Your task to perform on an android device: Clear the shopping cart on amazon.com. Image 0: 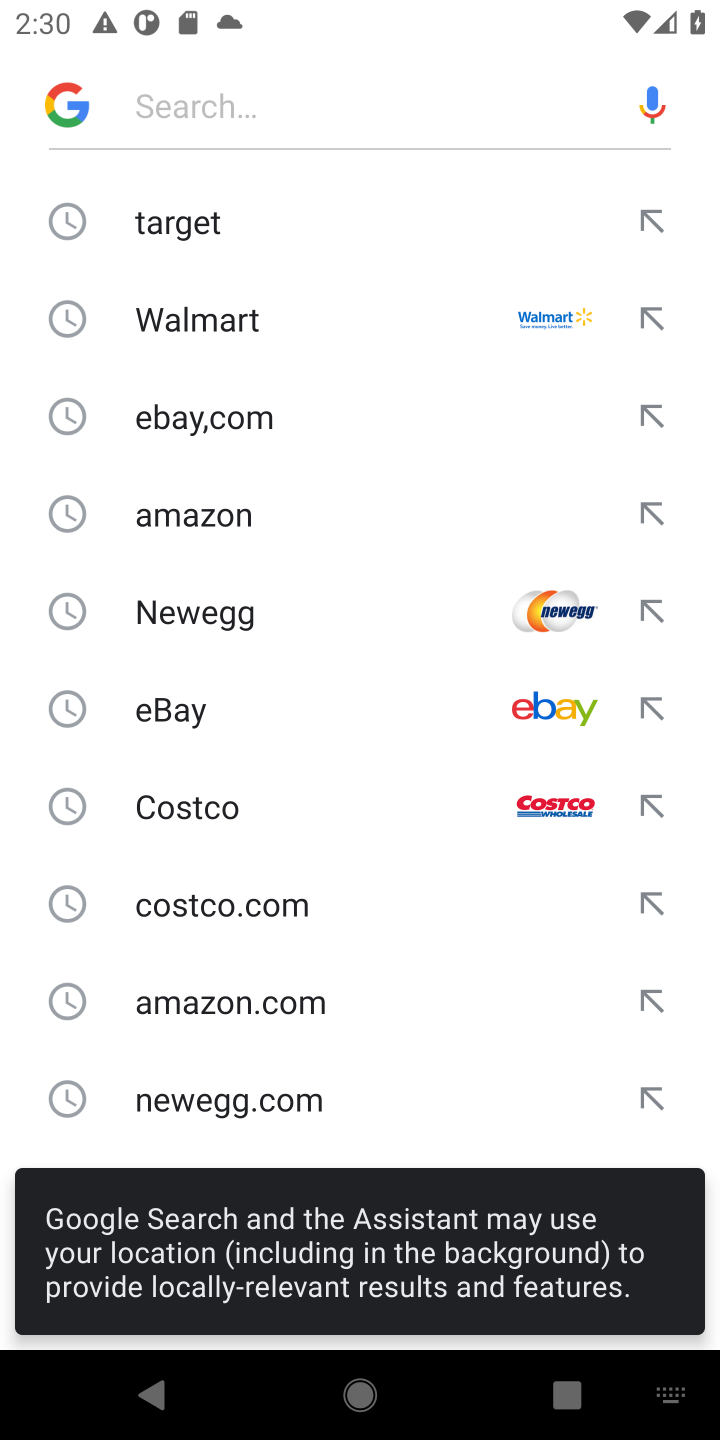
Step 0: press home button
Your task to perform on an android device: Clear the shopping cart on amazon.com. Image 1: 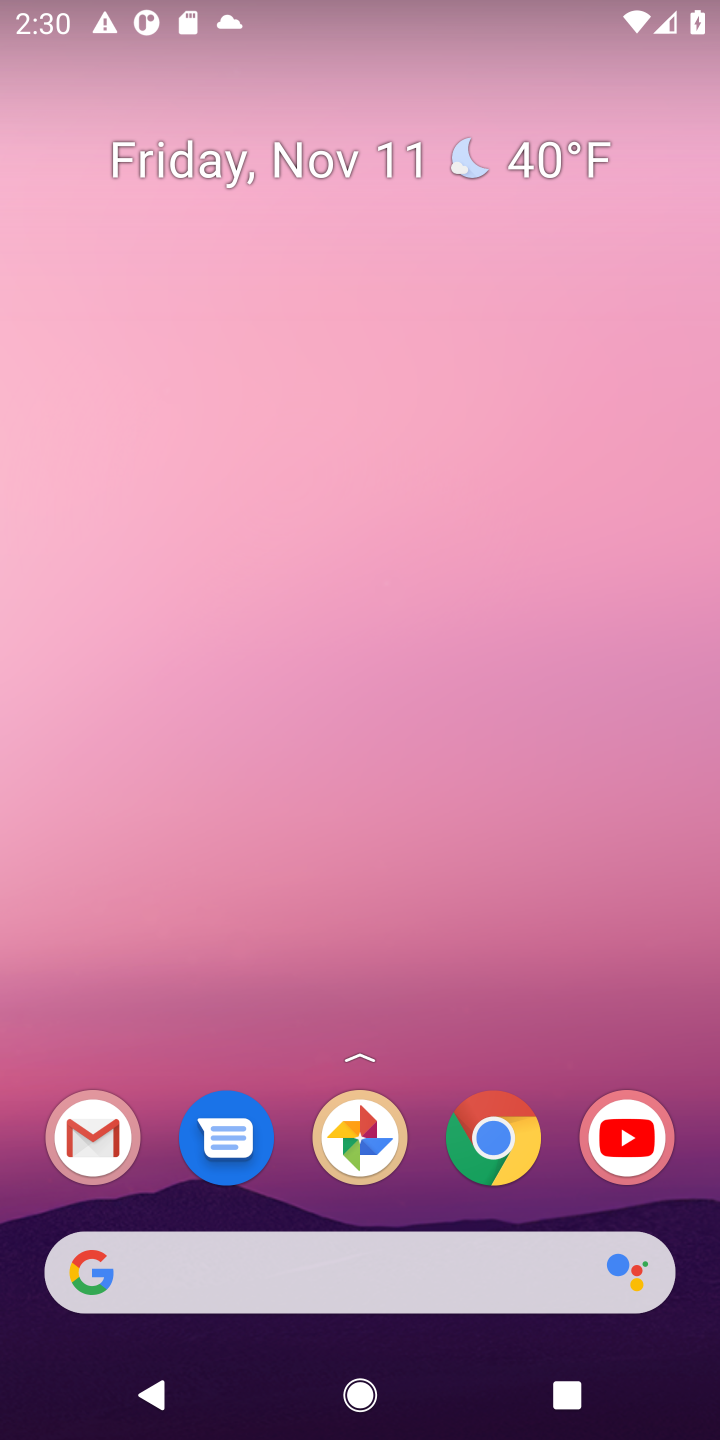
Step 1: click (488, 1122)
Your task to perform on an android device: Clear the shopping cart on amazon.com. Image 2: 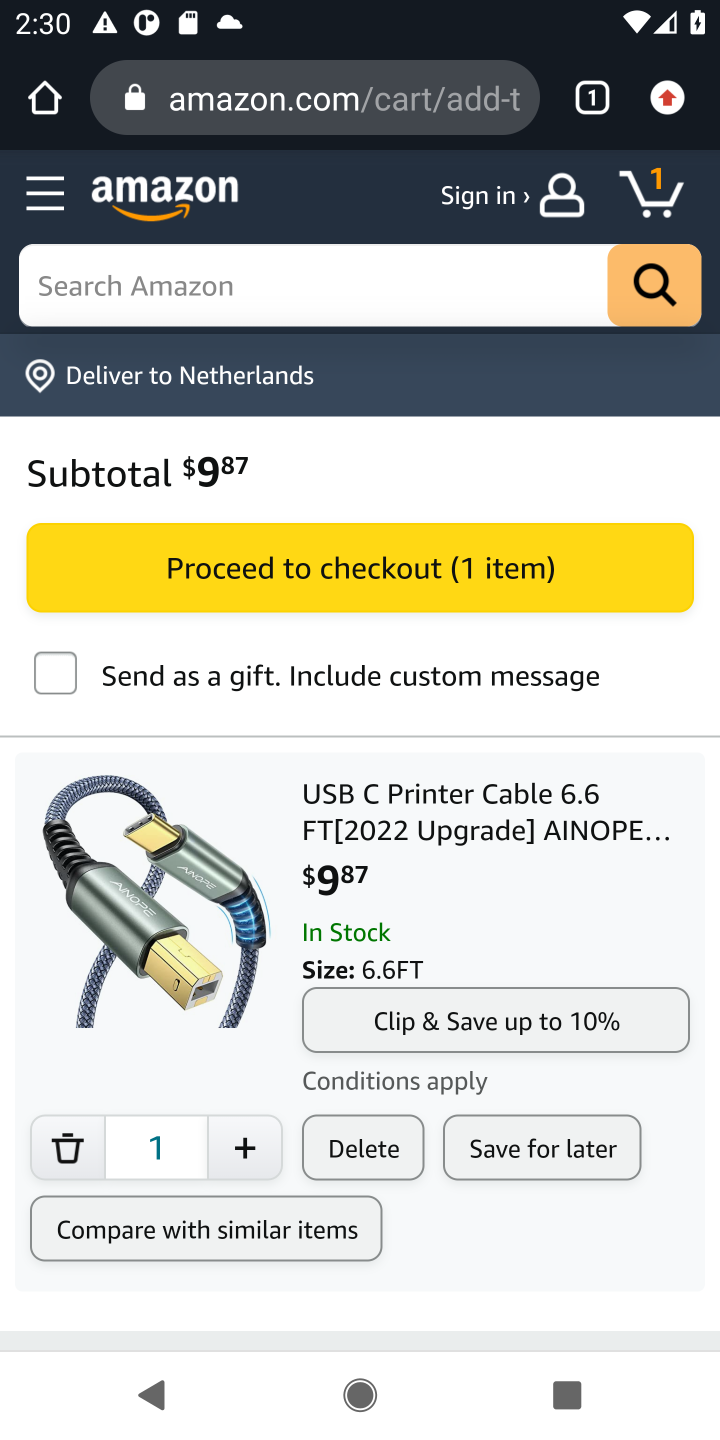
Step 2: click (653, 203)
Your task to perform on an android device: Clear the shopping cart on amazon.com. Image 3: 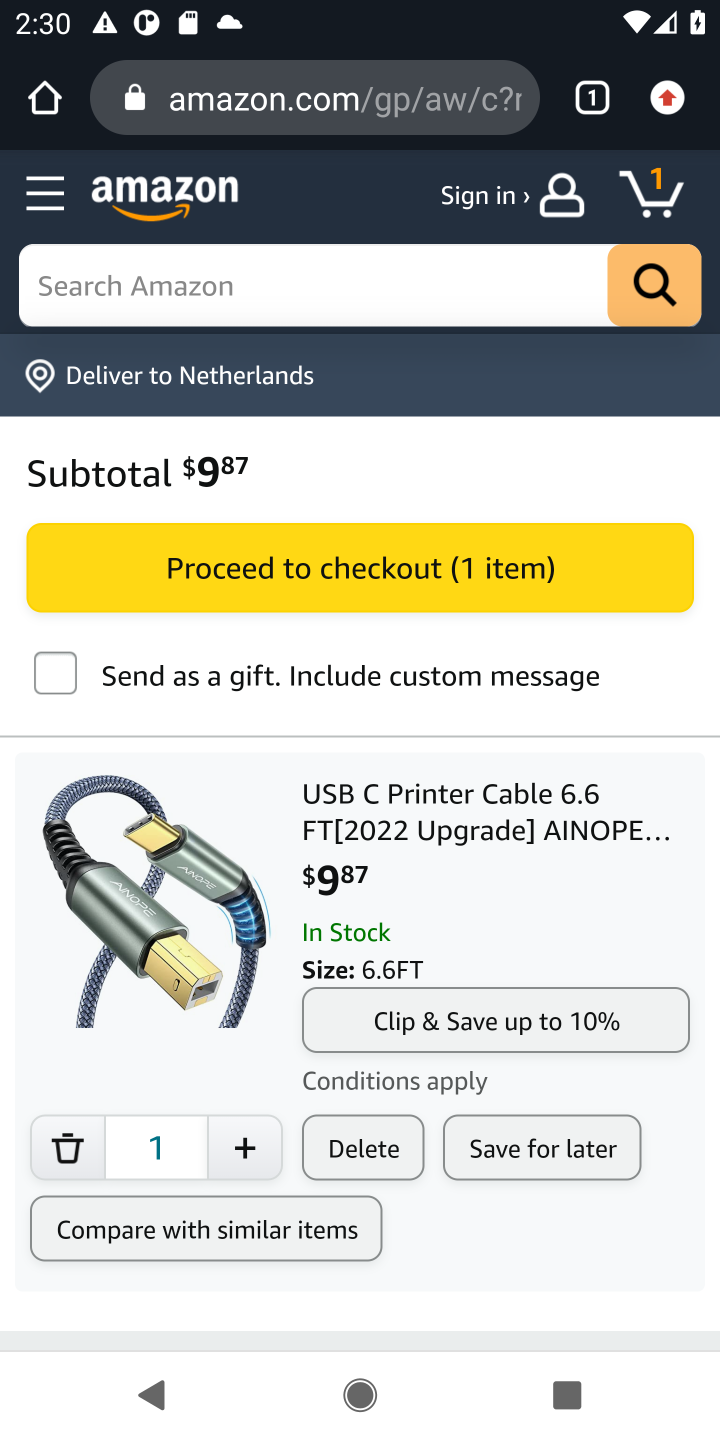
Step 3: click (365, 1150)
Your task to perform on an android device: Clear the shopping cart on amazon.com. Image 4: 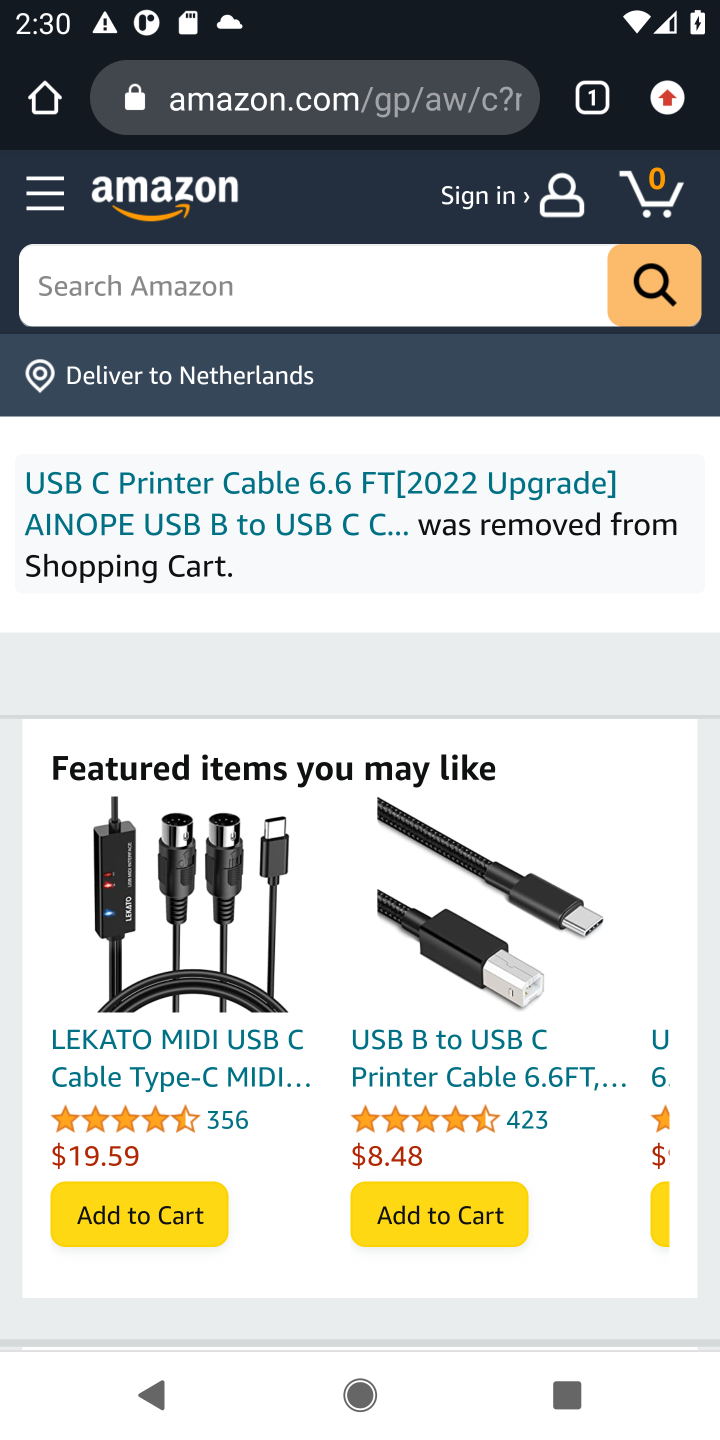
Step 4: task complete